Your task to perform on an android device: see tabs open on other devices in the chrome app Image 0: 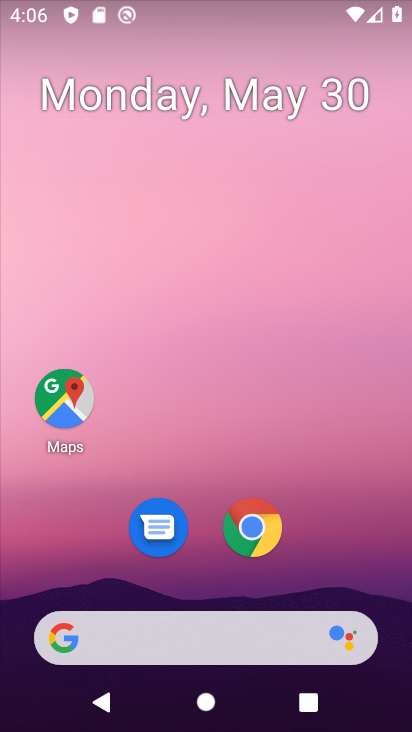
Step 0: drag from (231, 722) to (186, 249)
Your task to perform on an android device: see tabs open on other devices in the chrome app Image 1: 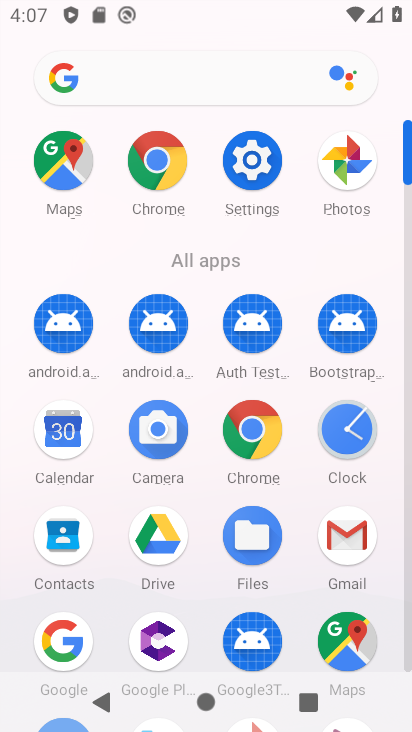
Step 1: click (261, 427)
Your task to perform on an android device: see tabs open on other devices in the chrome app Image 2: 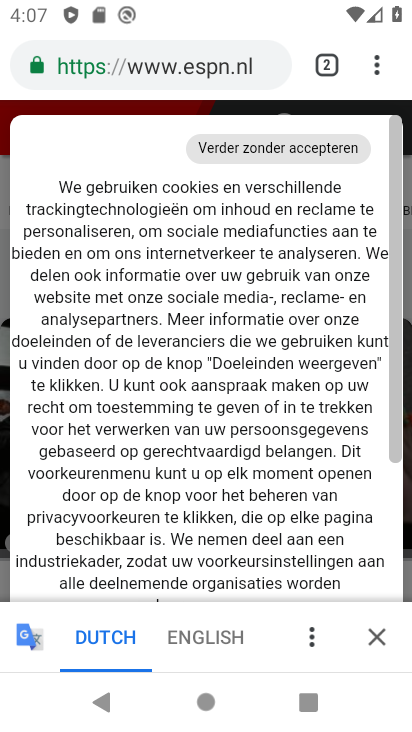
Step 2: click (378, 67)
Your task to perform on an android device: see tabs open on other devices in the chrome app Image 3: 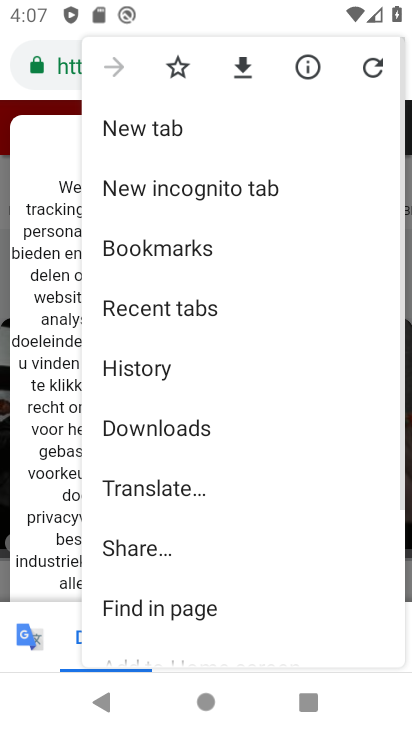
Step 3: drag from (169, 629) to (165, 209)
Your task to perform on an android device: see tabs open on other devices in the chrome app Image 4: 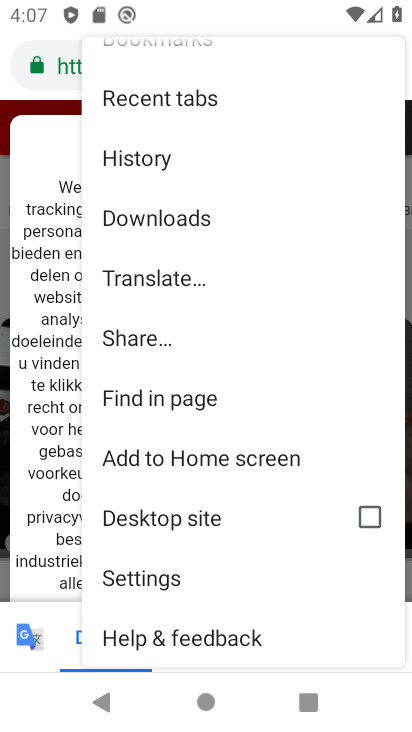
Step 4: drag from (185, 153) to (191, 367)
Your task to perform on an android device: see tabs open on other devices in the chrome app Image 5: 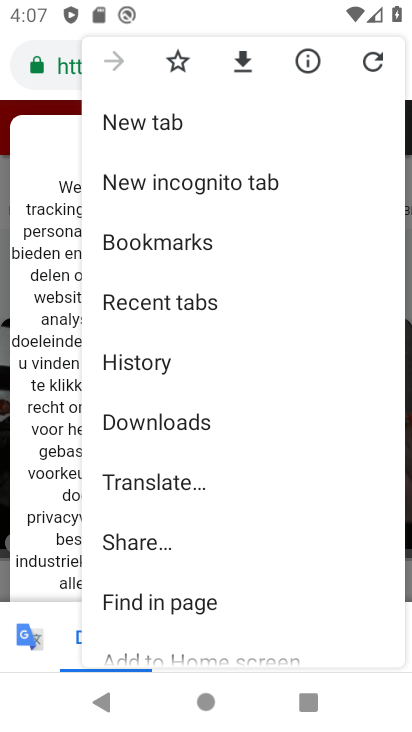
Step 5: click (181, 305)
Your task to perform on an android device: see tabs open on other devices in the chrome app Image 6: 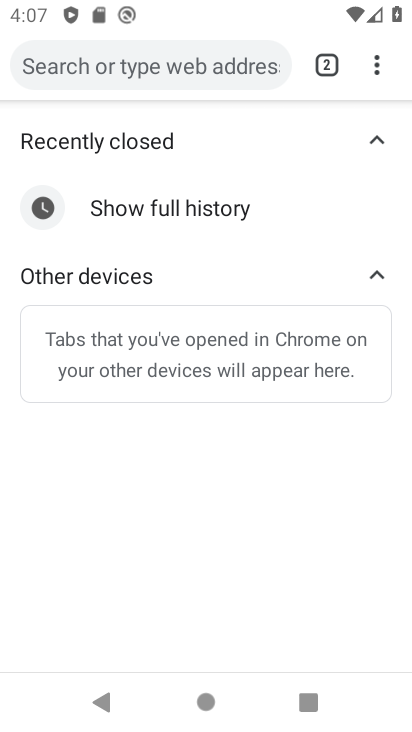
Step 6: task complete